Your task to perform on an android device: change the clock display to analog Image 0: 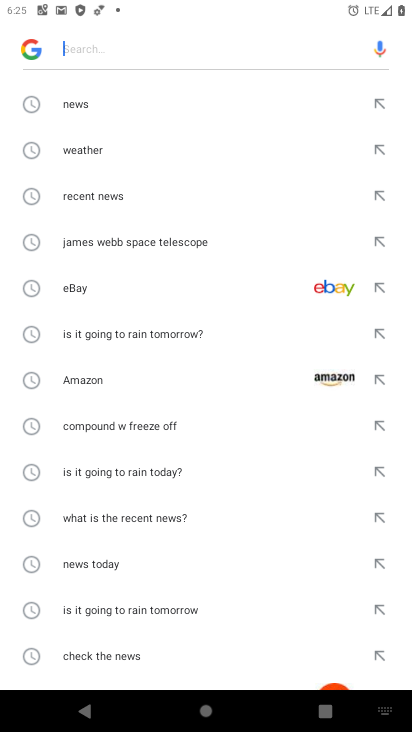
Step 0: press home button
Your task to perform on an android device: change the clock display to analog Image 1: 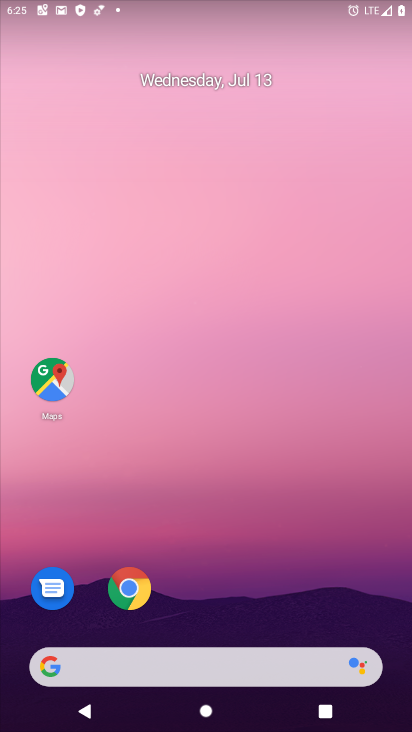
Step 1: drag from (183, 539) to (202, 54)
Your task to perform on an android device: change the clock display to analog Image 2: 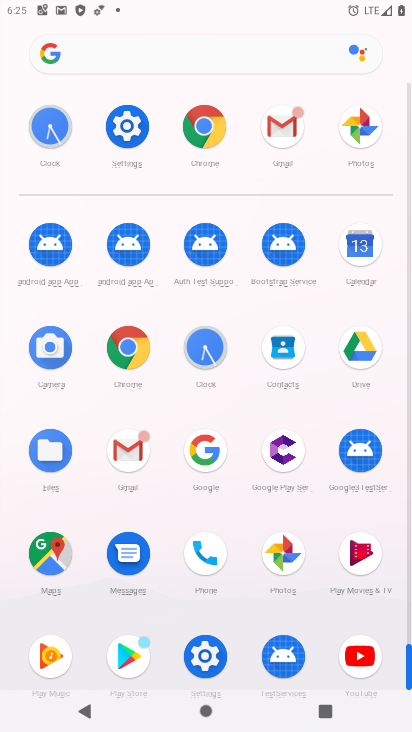
Step 2: click (45, 128)
Your task to perform on an android device: change the clock display to analog Image 3: 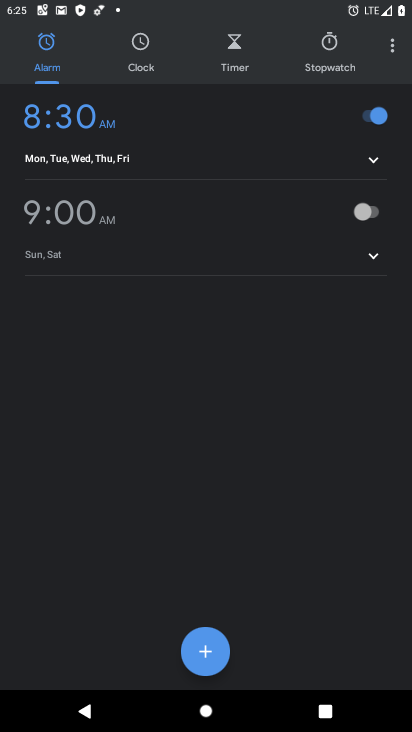
Step 3: click (393, 47)
Your task to perform on an android device: change the clock display to analog Image 4: 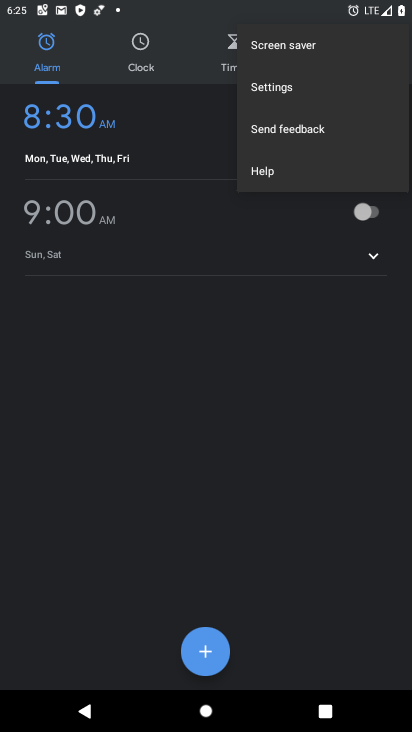
Step 4: click (299, 84)
Your task to perform on an android device: change the clock display to analog Image 5: 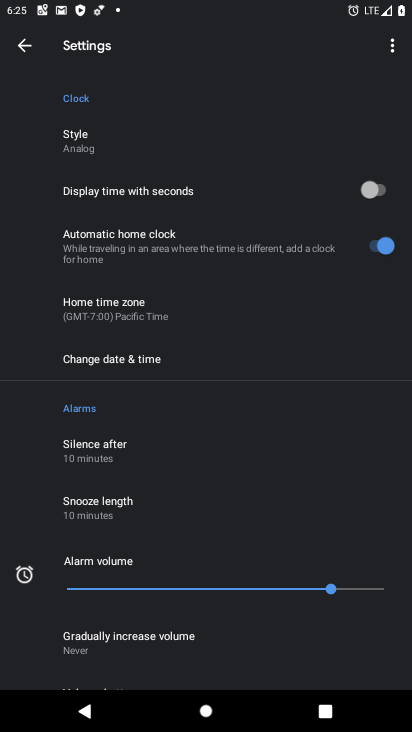
Step 5: task complete